Your task to perform on an android device: Open network settings Image 0: 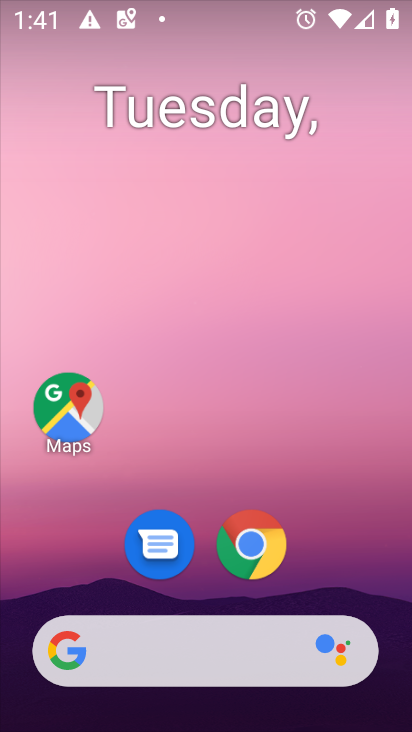
Step 0: drag from (332, 566) to (338, 225)
Your task to perform on an android device: Open network settings Image 1: 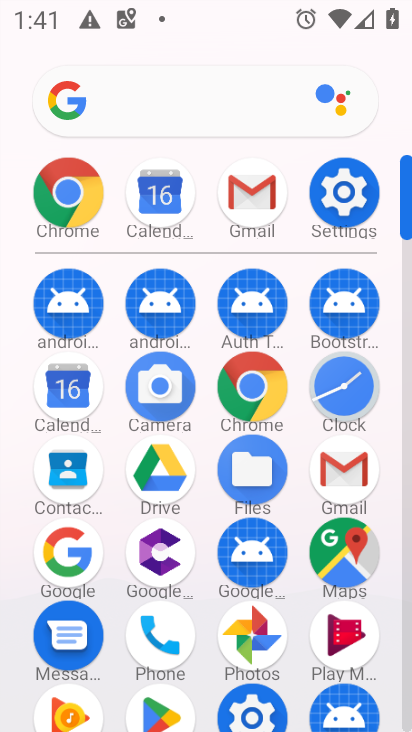
Step 1: click (243, 705)
Your task to perform on an android device: Open network settings Image 2: 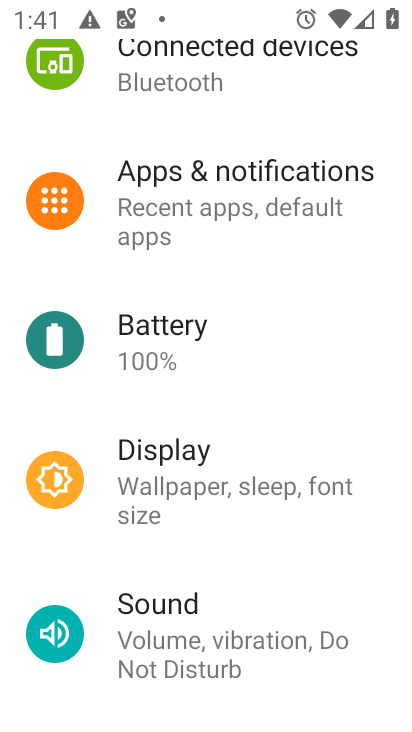
Step 2: drag from (286, 124) to (257, 591)
Your task to perform on an android device: Open network settings Image 3: 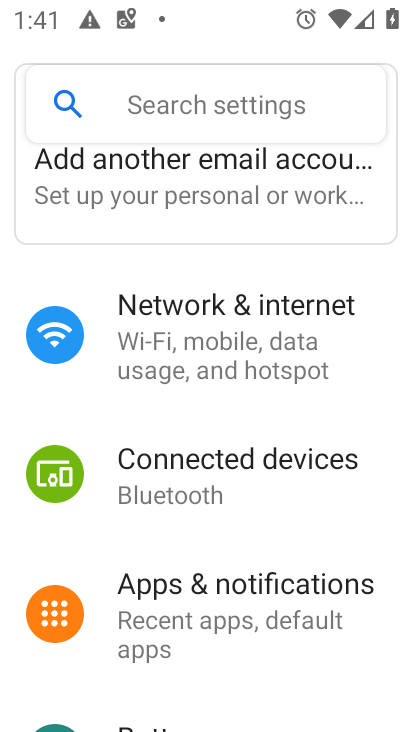
Step 3: click (228, 362)
Your task to perform on an android device: Open network settings Image 4: 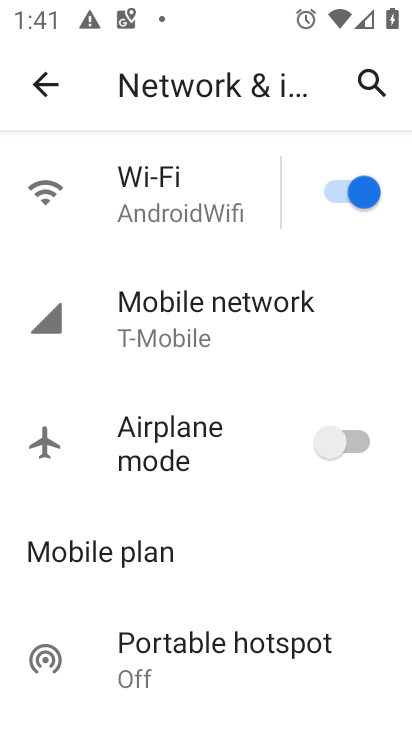
Step 4: task complete